Your task to perform on an android device: Show me productivity apps on the Play Store Image 0: 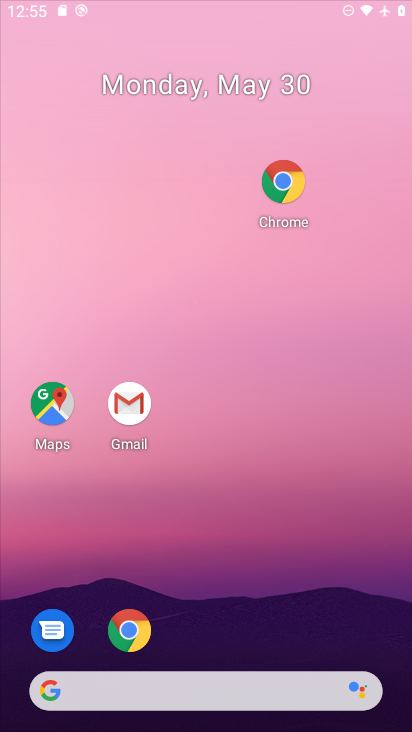
Step 0: click (266, 189)
Your task to perform on an android device: Show me productivity apps on the Play Store Image 1: 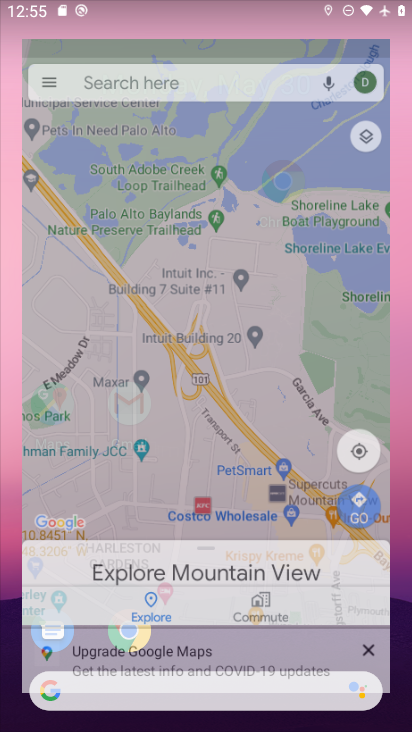
Step 1: drag from (270, 624) to (195, 93)
Your task to perform on an android device: Show me productivity apps on the Play Store Image 2: 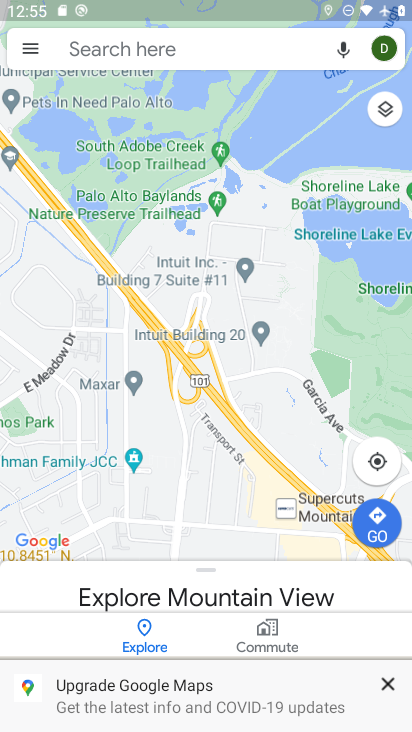
Step 2: press back button
Your task to perform on an android device: Show me productivity apps on the Play Store Image 3: 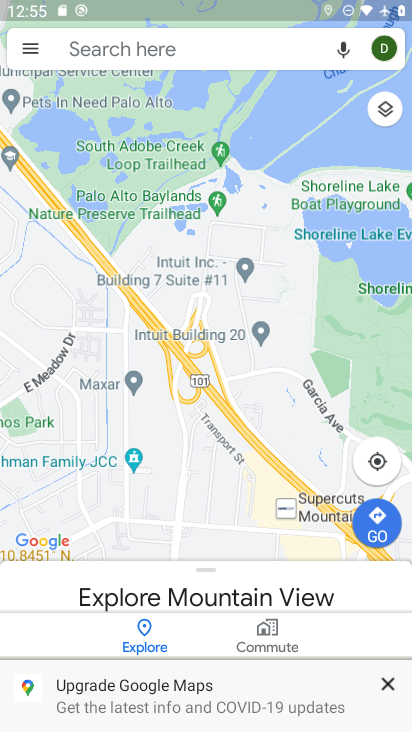
Step 3: press back button
Your task to perform on an android device: Show me productivity apps on the Play Store Image 4: 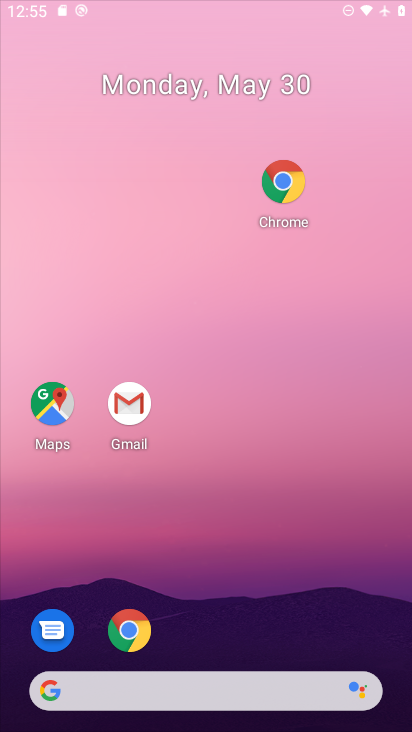
Step 4: press back button
Your task to perform on an android device: Show me productivity apps on the Play Store Image 5: 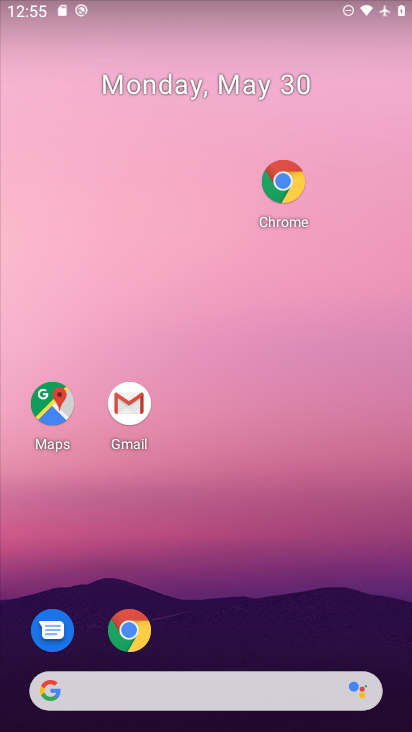
Step 5: press home button
Your task to perform on an android device: Show me productivity apps on the Play Store Image 6: 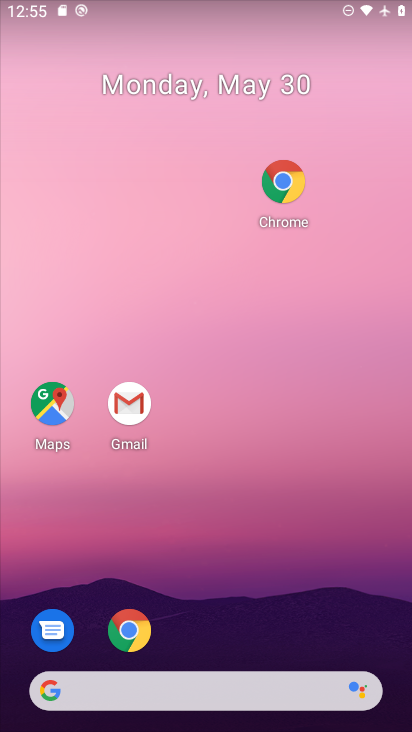
Step 6: drag from (284, 620) to (214, 145)
Your task to perform on an android device: Show me productivity apps on the Play Store Image 7: 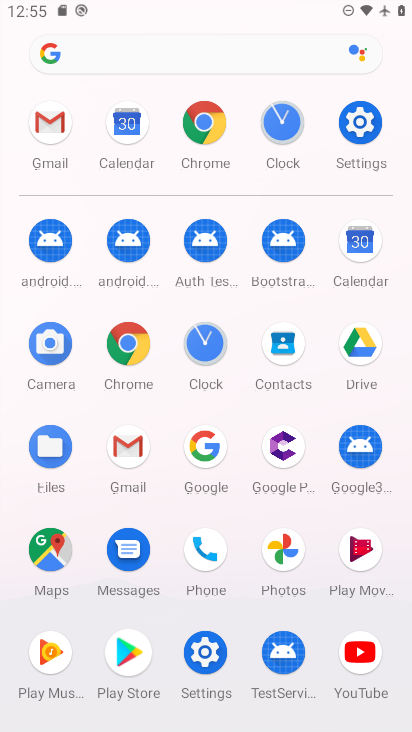
Step 7: click (127, 651)
Your task to perform on an android device: Show me productivity apps on the Play Store Image 8: 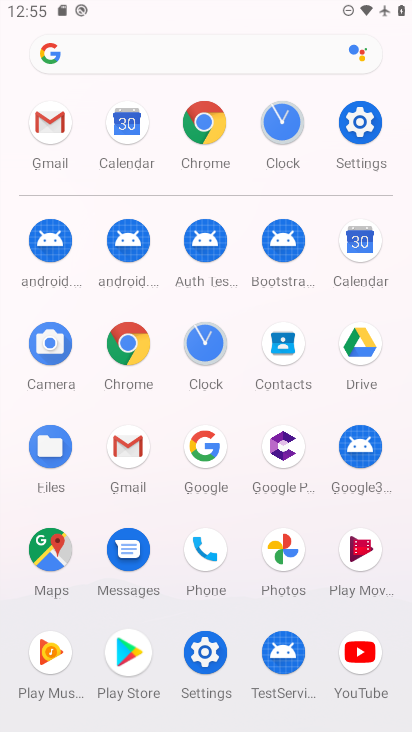
Step 8: click (122, 657)
Your task to perform on an android device: Show me productivity apps on the Play Store Image 9: 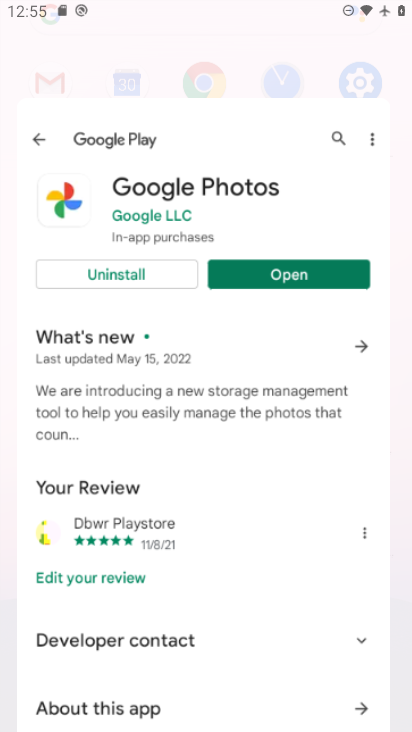
Step 9: click (122, 661)
Your task to perform on an android device: Show me productivity apps on the Play Store Image 10: 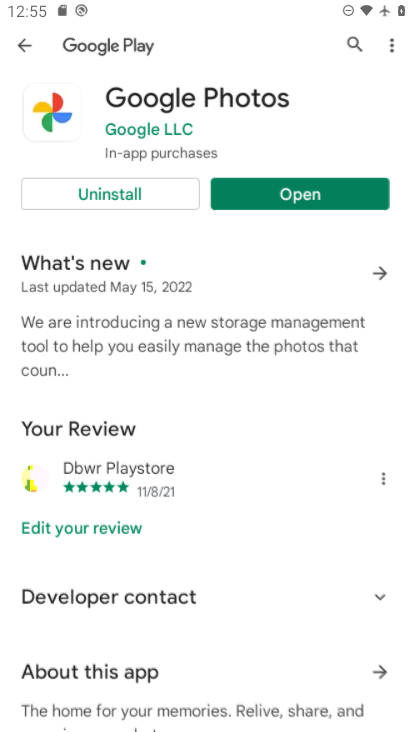
Step 10: click (122, 661)
Your task to perform on an android device: Show me productivity apps on the Play Store Image 11: 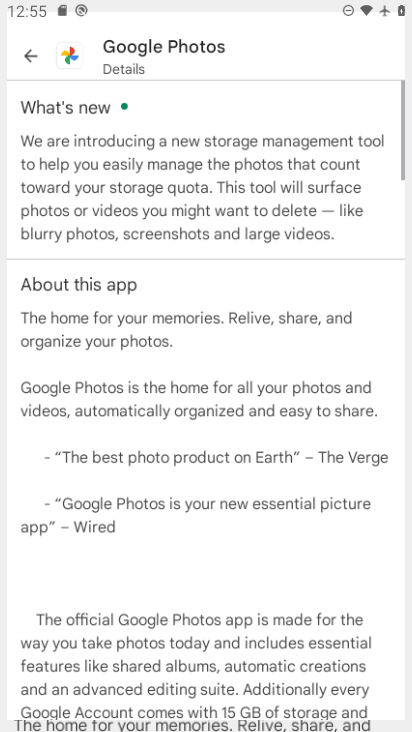
Step 11: click (122, 661)
Your task to perform on an android device: Show me productivity apps on the Play Store Image 12: 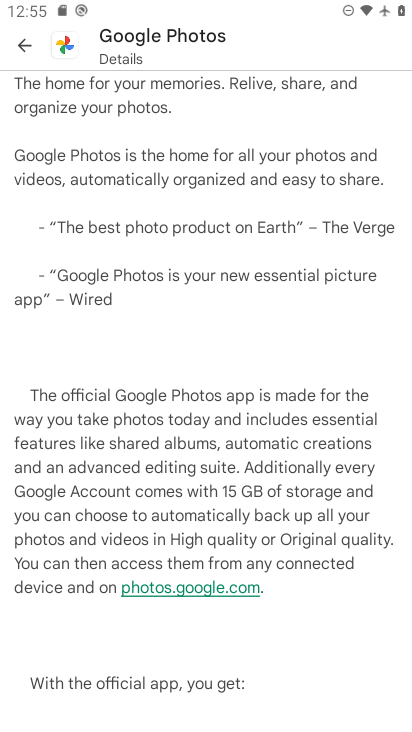
Step 12: click (19, 47)
Your task to perform on an android device: Show me productivity apps on the Play Store Image 13: 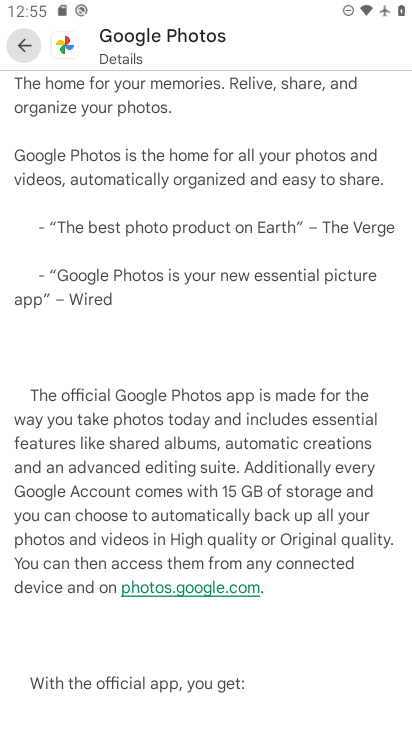
Step 13: click (20, 46)
Your task to perform on an android device: Show me productivity apps on the Play Store Image 14: 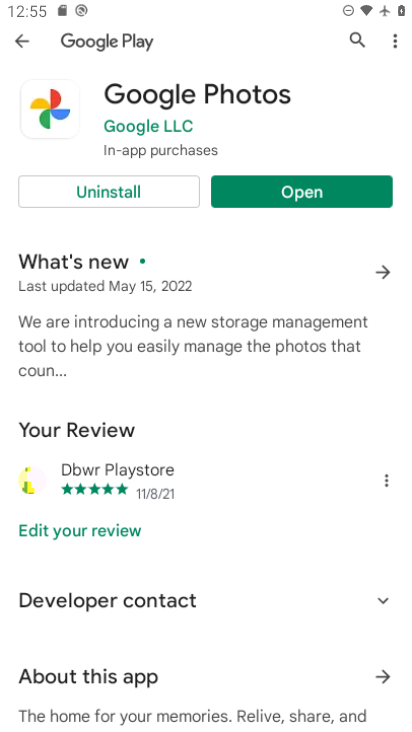
Step 14: click (20, 46)
Your task to perform on an android device: Show me productivity apps on the Play Store Image 15: 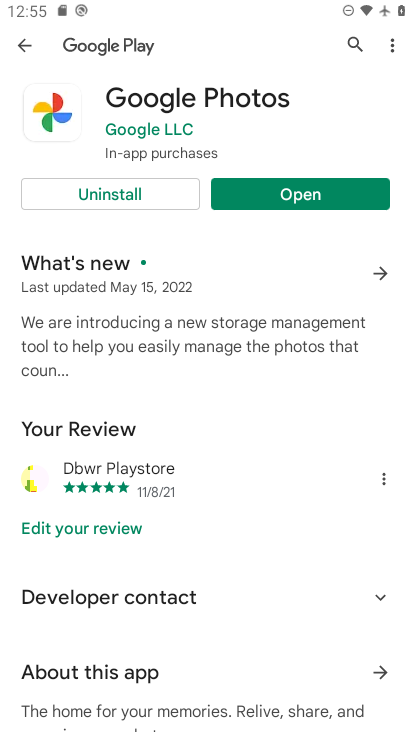
Step 15: click (20, 46)
Your task to perform on an android device: Show me productivity apps on the Play Store Image 16: 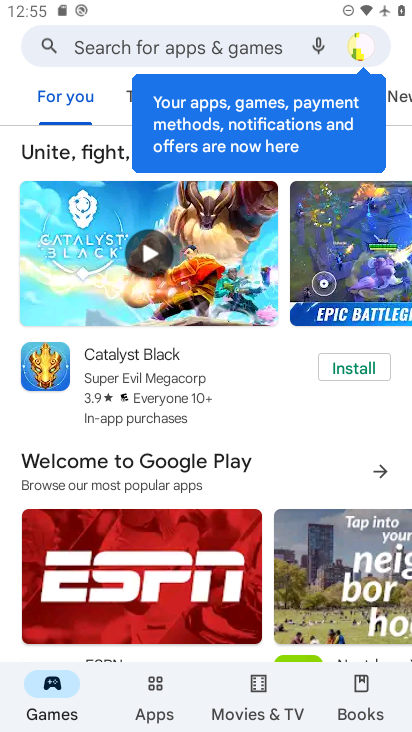
Step 16: press back button
Your task to perform on an android device: Show me productivity apps on the Play Store Image 17: 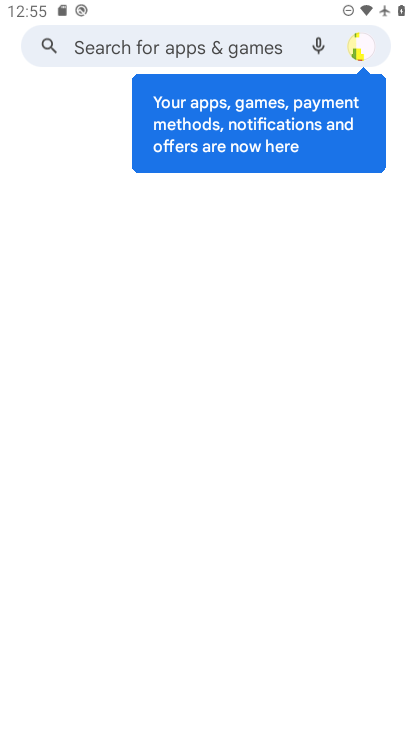
Step 17: press back button
Your task to perform on an android device: Show me productivity apps on the Play Store Image 18: 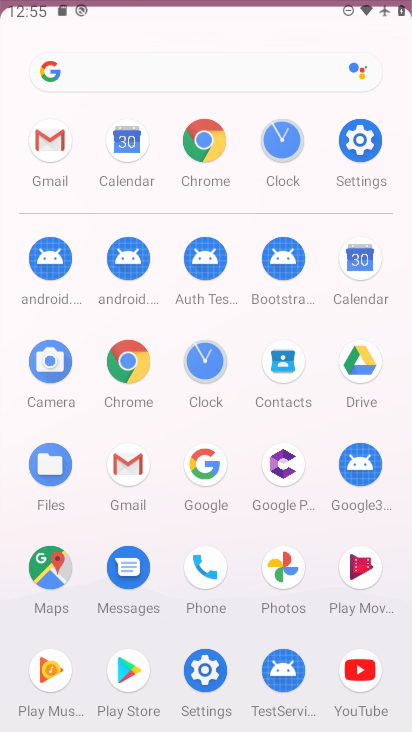
Step 18: press back button
Your task to perform on an android device: Show me productivity apps on the Play Store Image 19: 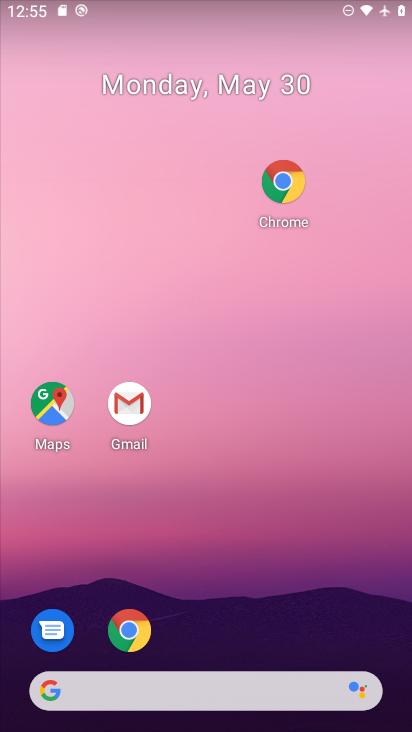
Step 19: drag from (215, 682) to (141, 89)
Your task to perform on an android device: Show me productivity apps on the Play Store Image 20: 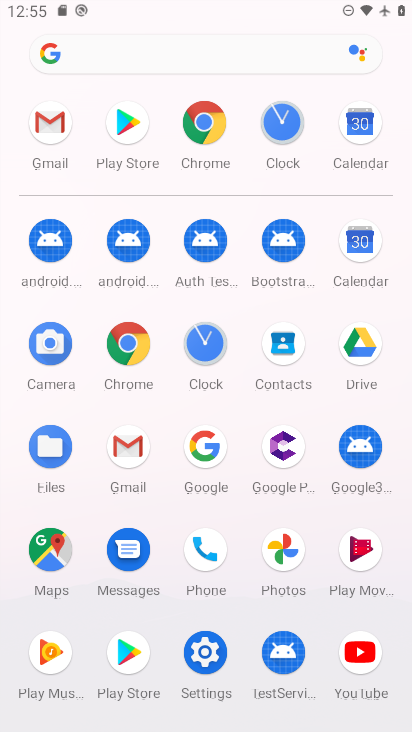
Step 20: click (129, 649)
Your task to perform on an android device: Show me productivity apps on the Play Store Image 21: 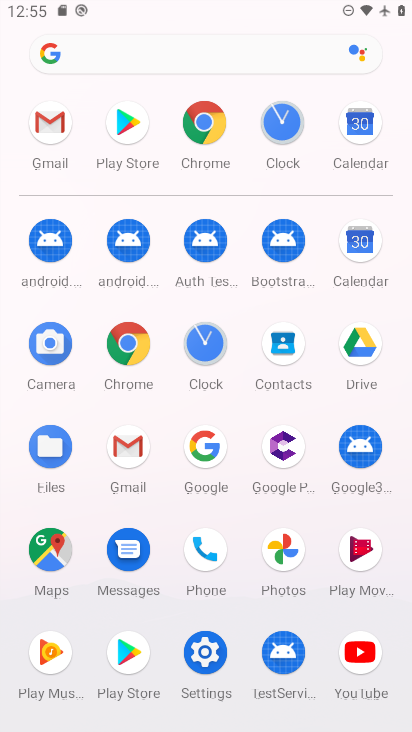
Step 21: click (130, 638)
Your task to perform on an android device: Show me productivity apps on the Play Store Image 22: 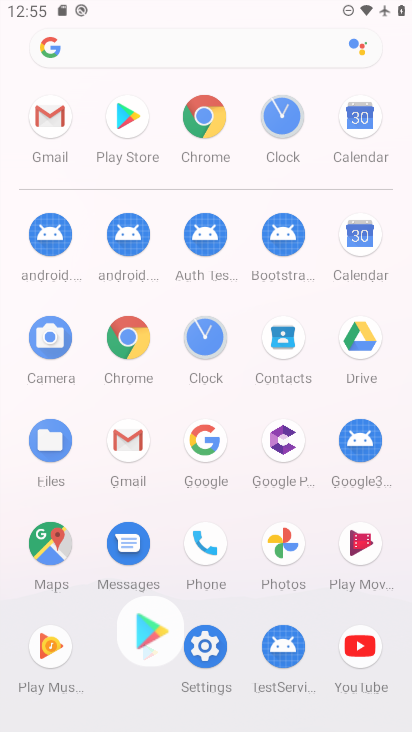
Step 22: click (130, 638)
Your task to perform on an android device: Show me productivity apps on the Play Store Image 23: 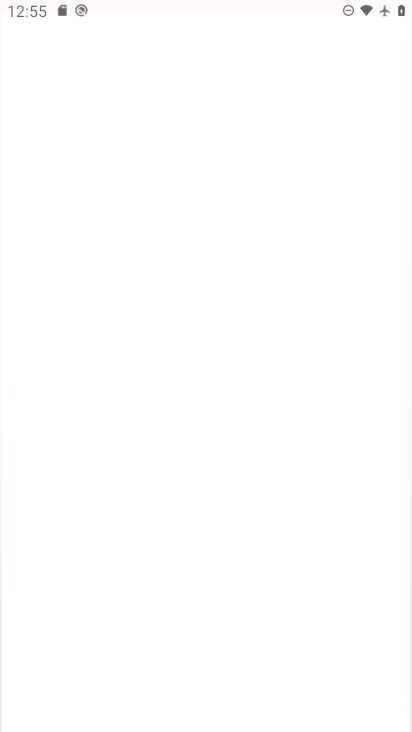
Step 23: click (130, 638)
Your task to perform on an android device: Show me productivity apps on the Play Store Image 24: 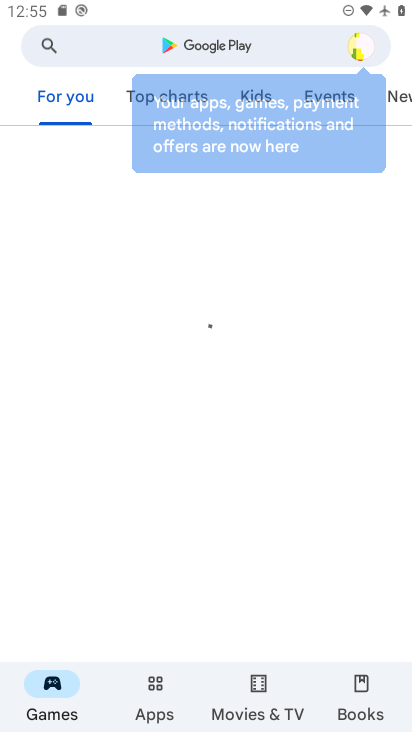
Step 24: click (128, 644)
Your task to perform on an android device: Show me productivity apps on the Play Store Image 25: 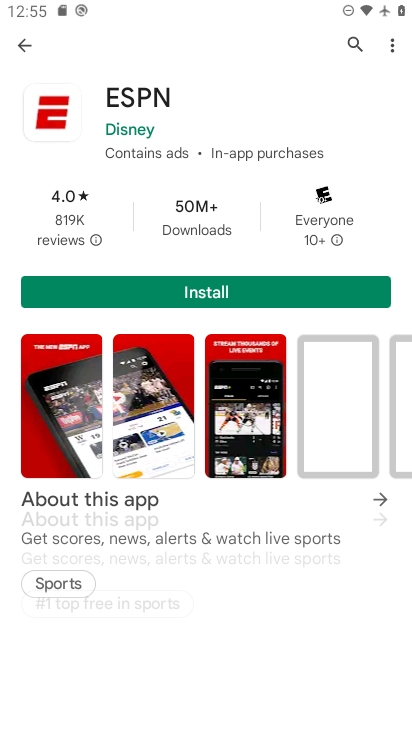
Step 25: click (70, 45)
Your task to perform on an android device: Show me productivity apps on the Play Store Image 26: 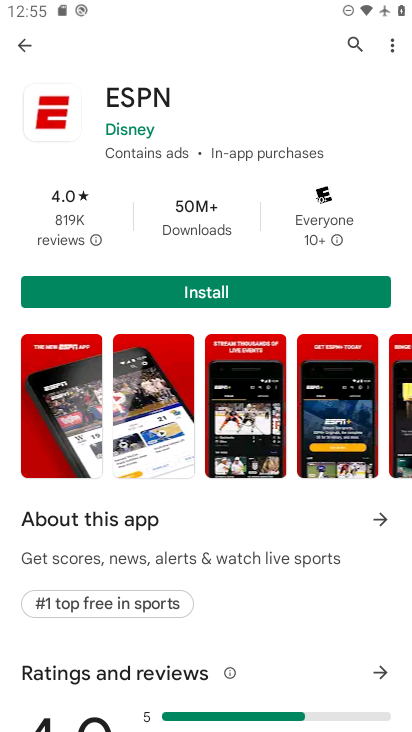
Step 26: click (27, 44)
Your task to perform on an android device: Show me productivity apps on the Play Store Image 27: 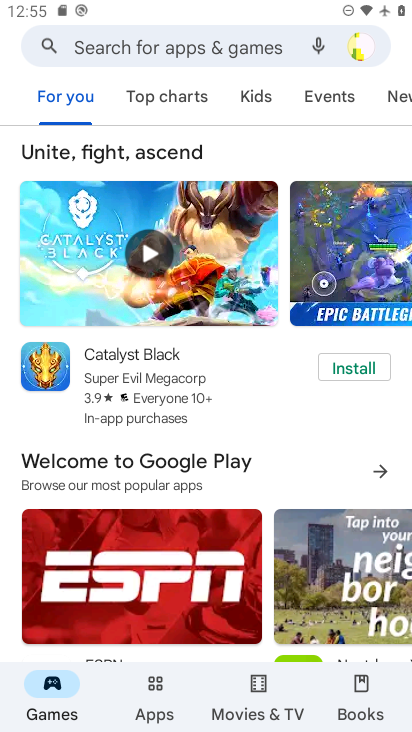
Step 27: click (106, 45)
Your task to perform on an android device: Show me productivity apps on the Play Store Image 28: 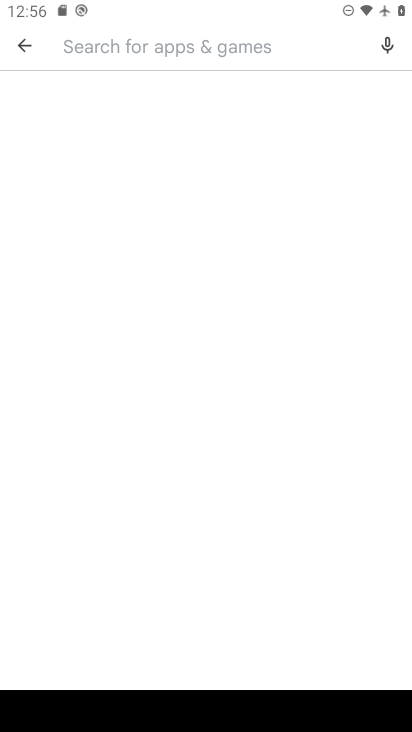
Step 28: type "productivity apps"
Your task to perform on an android device: Show me productivity apps on the Play Store Image 29: 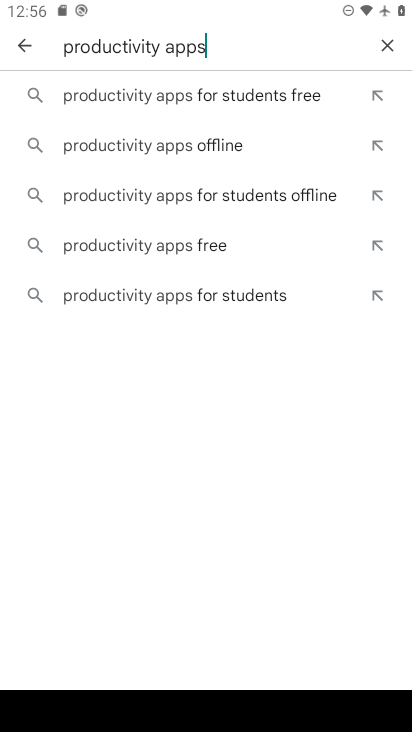
Step 29: click (161, 51)
Your task to perform on an android device: Show me productivity apps on the Play Store Image 30: 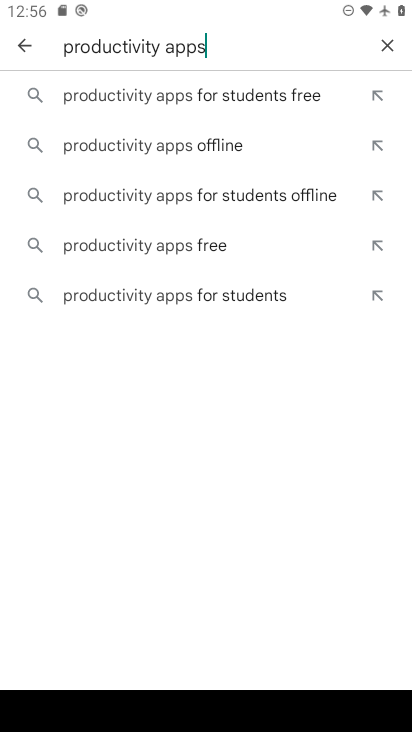
Step 30: click (161, 51)
Your task to perform on an android device: Show me productivity apps on the Play Store Image 31: 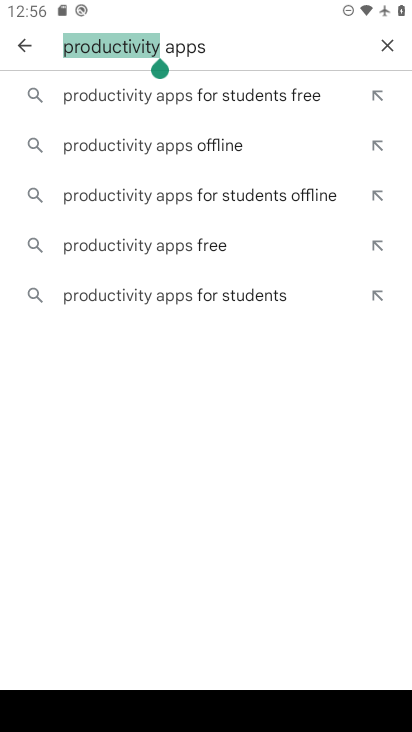
Step 31: click (161, 51)
Your task to perform on an android device: Show me productivity apps on the Play Store Image 32: 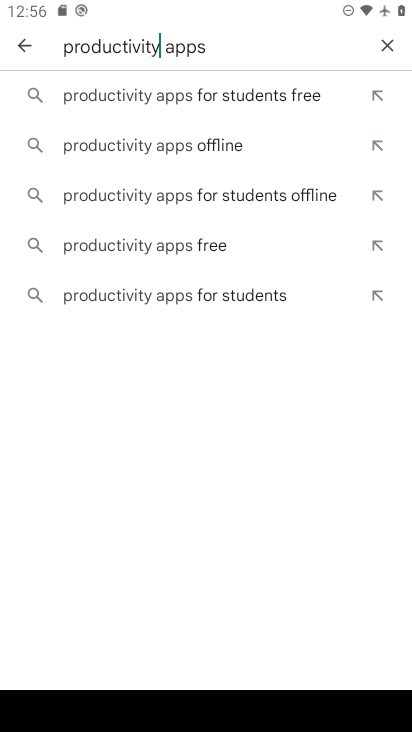
Step 32: click (160, 52)
Your task to perform on an android device: Show me productivity apps on the Play Store Image 33: 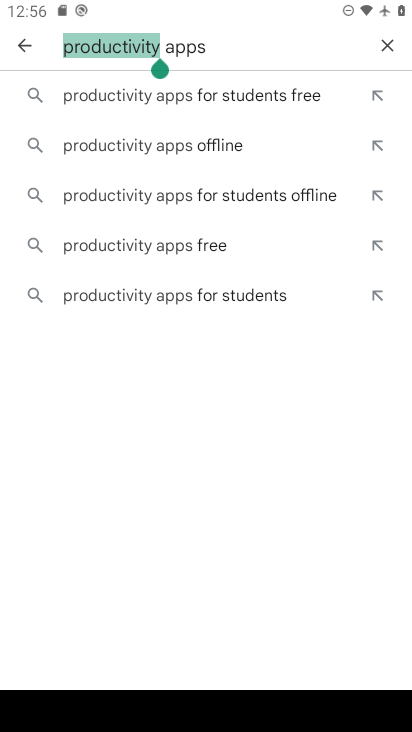
Step 33: click (160, 52)
Your task to perform on an android device: Show me productivity apps on the Play Store Image 34: 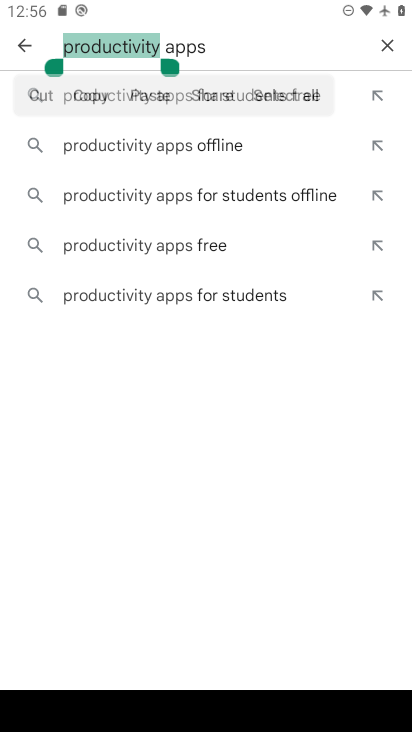
Step 34: click (160, 52)
Your task to perform on an android device: Show me productivity apps on the Play Store Image 35: 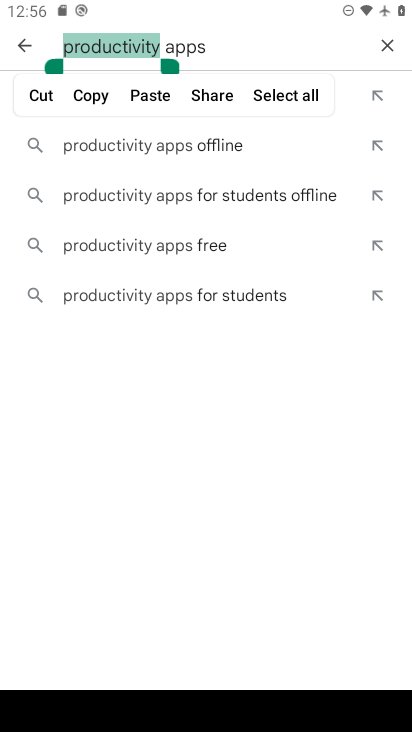
Step 35: click (197, 31)
Your task to perform on an android device: Show me productivity apps on the Play Store Image 36: 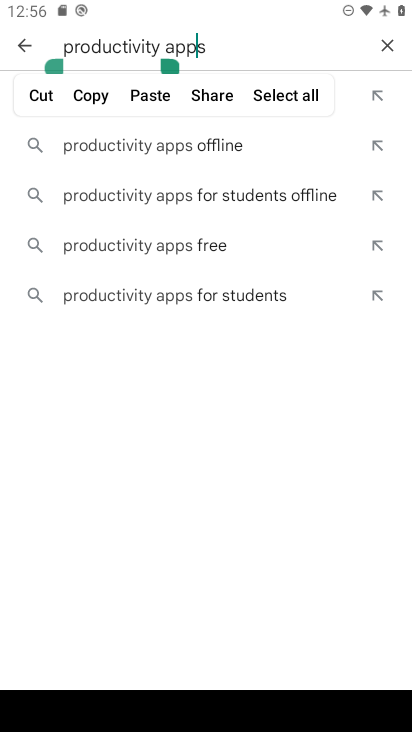
Step 36: click (207, 44)
Your task to perform on an android device: Show me productivity apps on the Play Store Image 37: 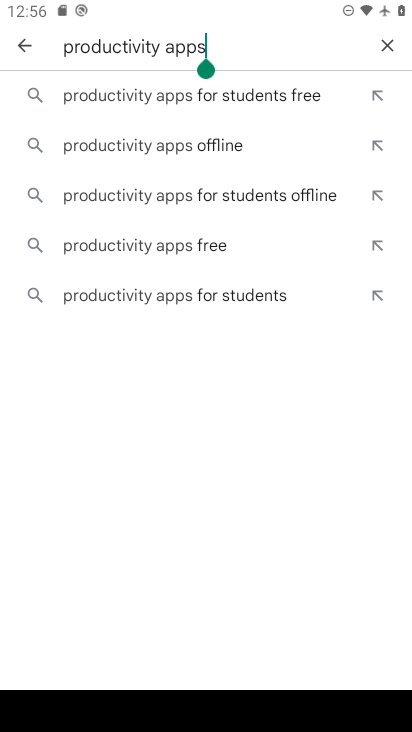
Step 37: click (228, 49)
Your task to perform on an android device: Show me productivity apps on the Play Store Image 38: 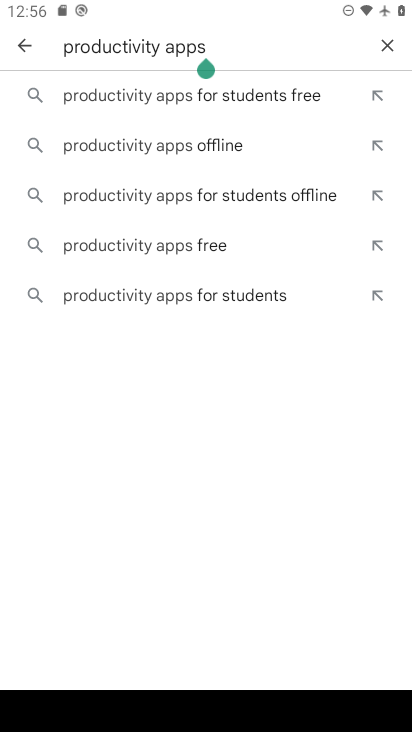
Step 38: click (230, 49)
Your task to perform on an android device: Show me productivity apps on the Play Store Image 39: 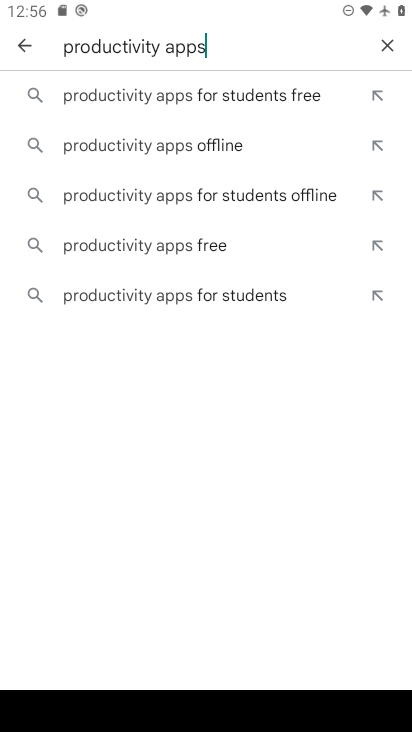
Step 39: click (230, 49)
Your task to perform on an android device: Show me productivity apps on the Play Store Image 40: 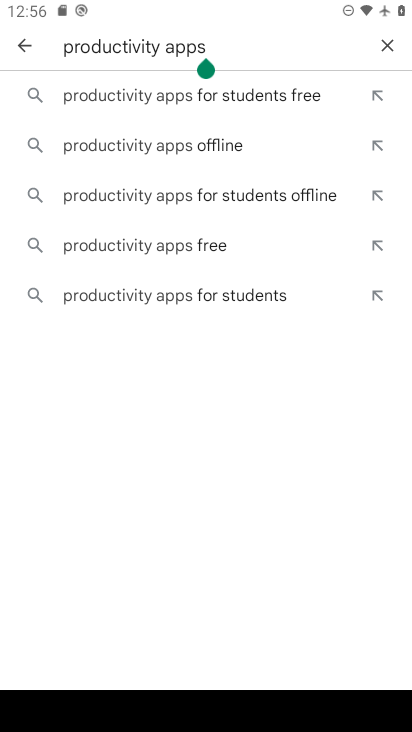
Step 40: click (374, 99)
Your task to perform on an android device: Show me productivity apps on the Play Store Image 41: 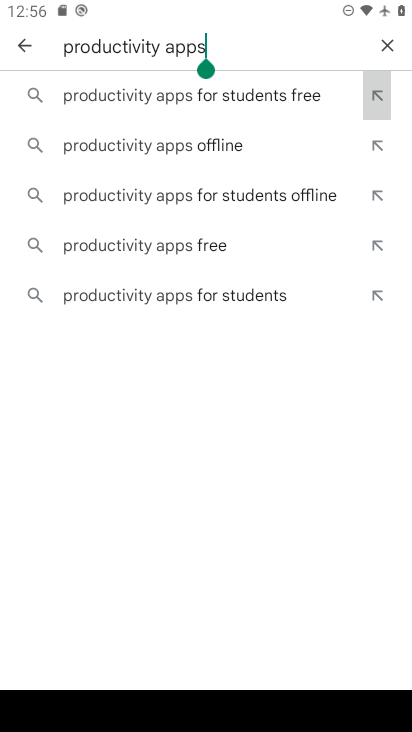
Step 41: click (374, 99)
Your task to perform on an android device: Show me productivity apps on the Play Store Image 42: 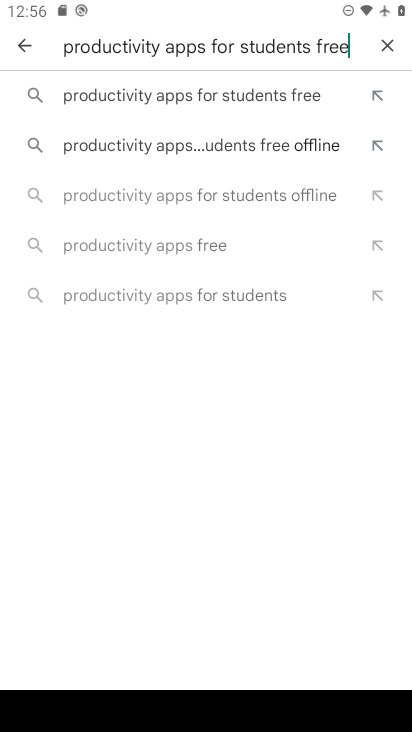
Step 42: click (374, 99)
Your task to perform on an android device: Show me productivity apps on the Play Store Image 43: 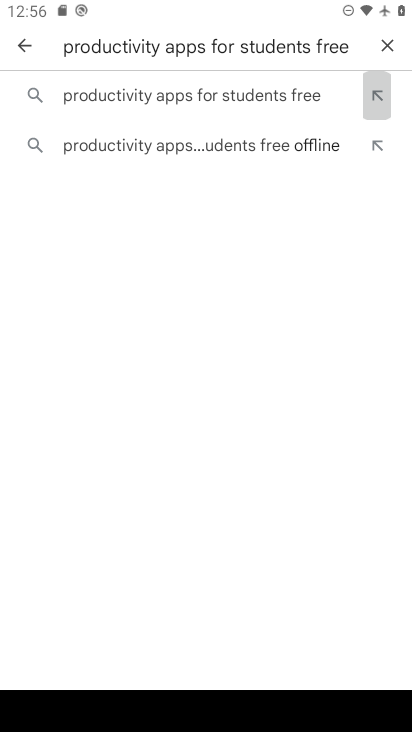
Step 43: click (374, 99)
Your task to perform on an android device: Show me productivity apps on the Play Store Image 44: 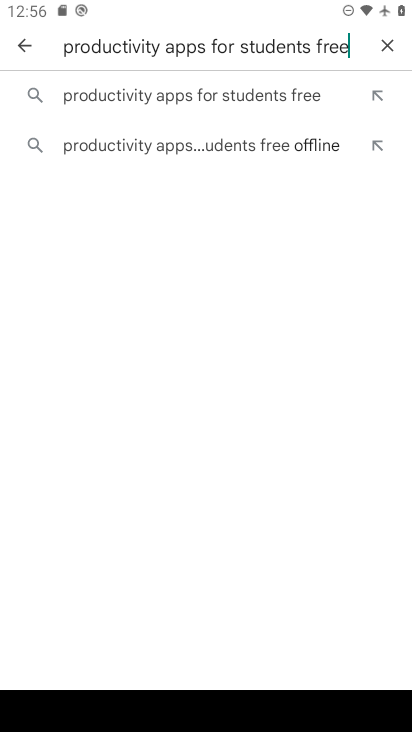
Step 44: press back button
Your task to perform on an android device: Show me productivity apps on the Play Store Image 45: 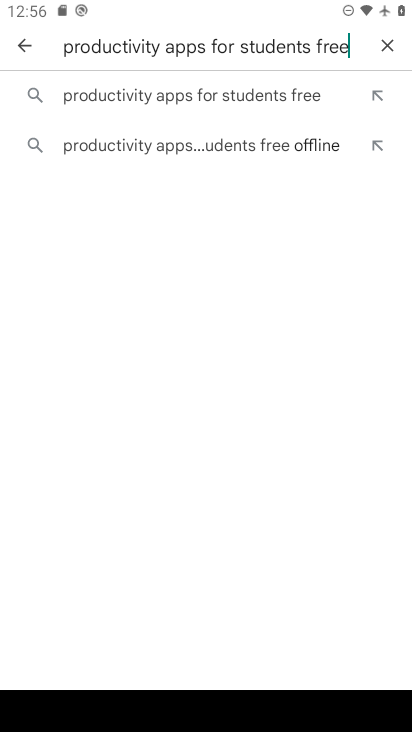
Step 45: press back button
Your task to perform on an android device: Show me productivity apps on the Play Store Image 46: 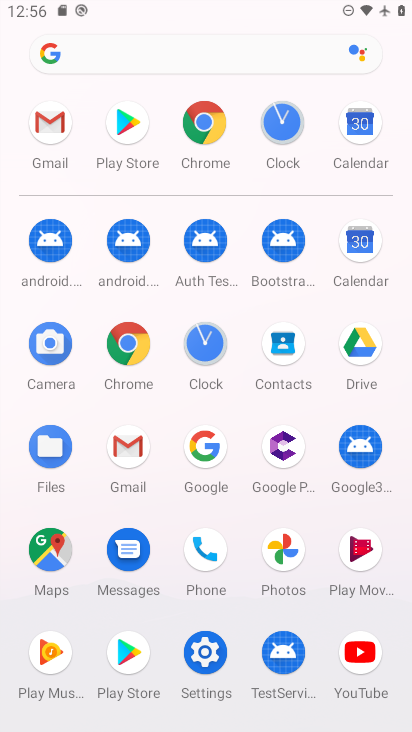
Step 46: click (140, 645)
Your task to perform on an android device: Show me productivity apps on the Play Store Image 47: 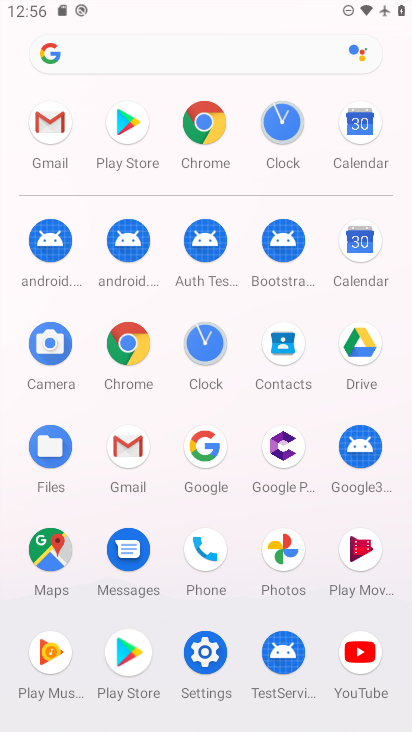
Step 47: click (140, 645)
Your task to perform on an android device: Show me productivity apps on the Play Store Image 48: 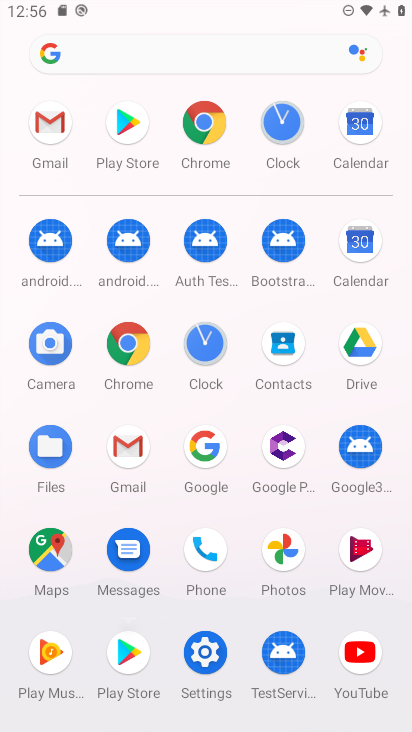
Step 48: click (138, 645)
Your task to perform on an android device: Show me productivity apps on the Play Store Image 49: 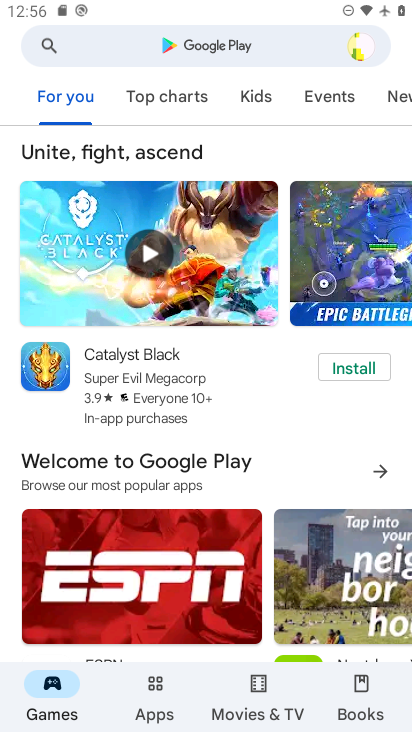
Step 49: click (99, 62)
Your task to perform on an android device: Show me productivity apps on the Play Store Image 50: 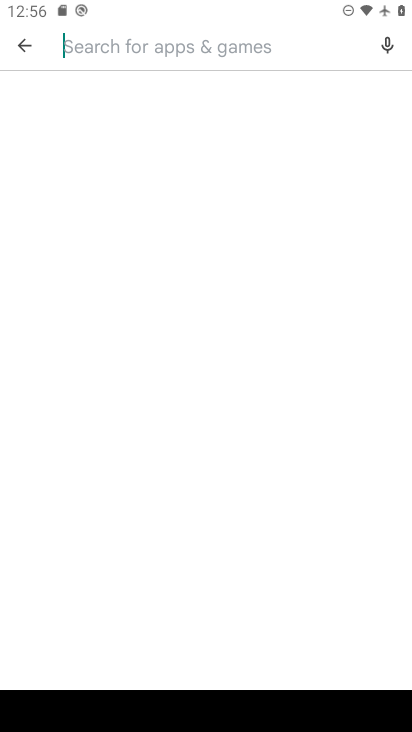
Step 50: type "productivity apps"
Your task to perform on an android device: Show me productivity apps on the Play Store Image 51: 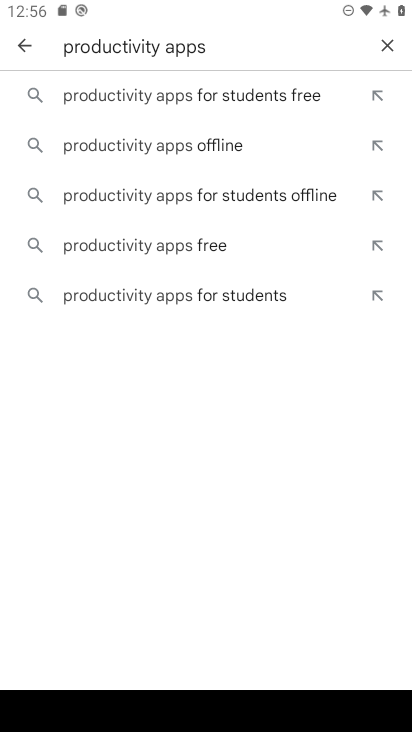
Step 51: click (197, 97)
Your task to perform on an android device: Show me productivity apps on the Play Store Image 52: 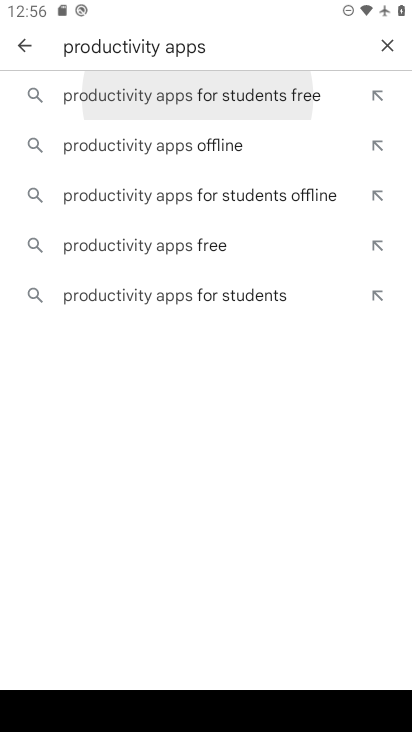
Step 52: click (197, 97)
Your task to perform on an android device: Show me productivity apps on the Play Store Image 53: 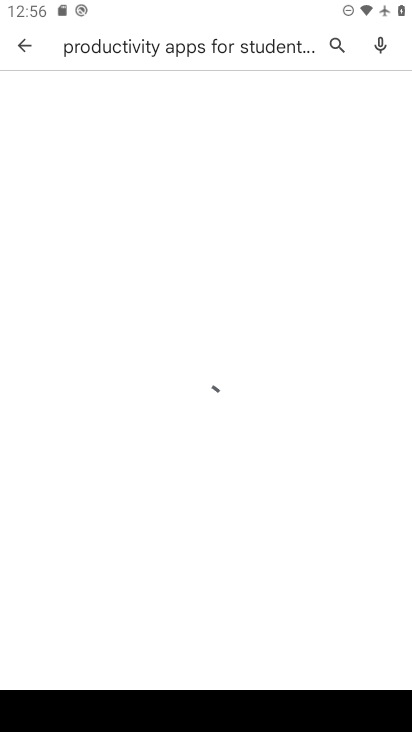
Step 53: click (197, 97)
Your task to perform on an android device: Show me productivity apps on the Play Store Image 54: 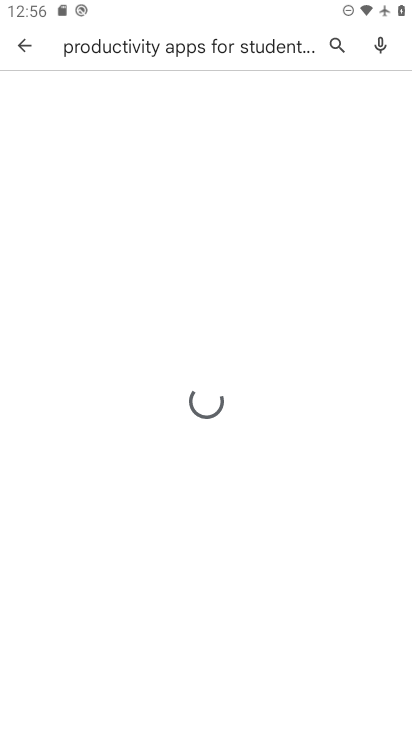
Step 54: click (197, 97)
Your task to perform on an android device: Show me productivity apps on the Play Store Image 55: 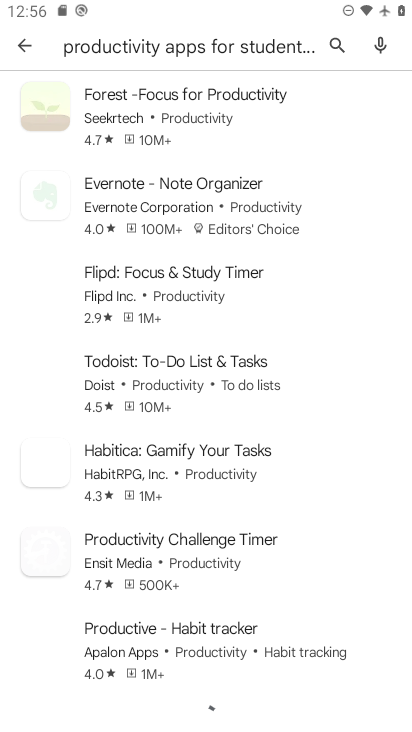
Step 55: click (196, 96)
Your task to perform on an android device: Show me productivity apps on the Play Store Image 56: 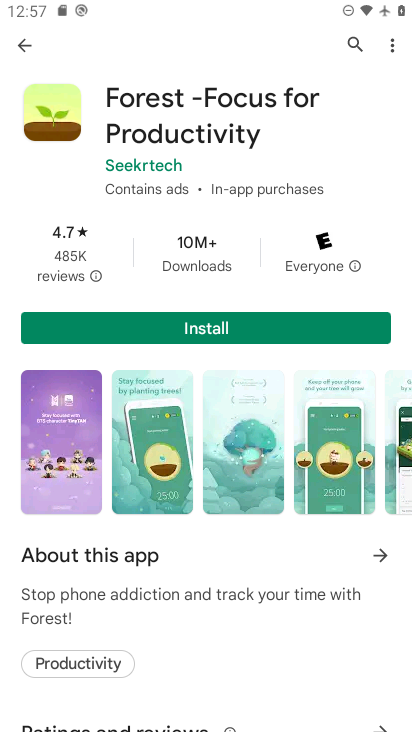
Step 56: click (18, 43)
Your task to perform on an android device: Show me productivity apps on the Play Store Image 57: 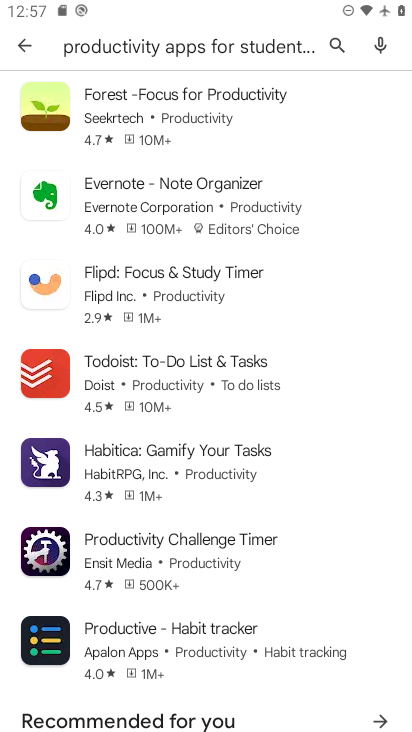
Step 57: task complete